Your task to perform on an android device: Find coffee shops on Maps Image 0: 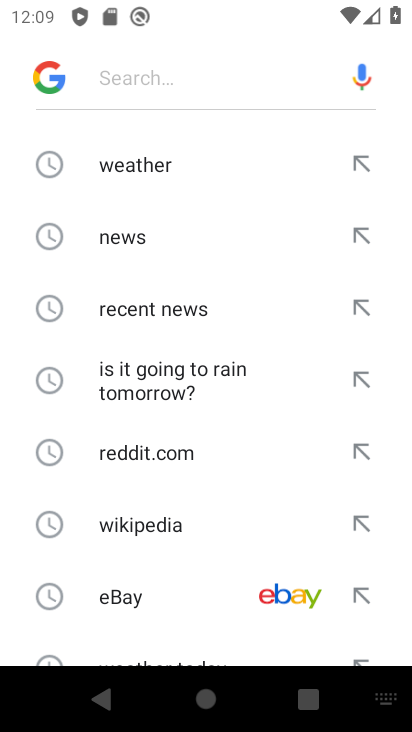
Step 0: press home button
Your task to perform on an android device: Find coffee shops on Maps Image 1: 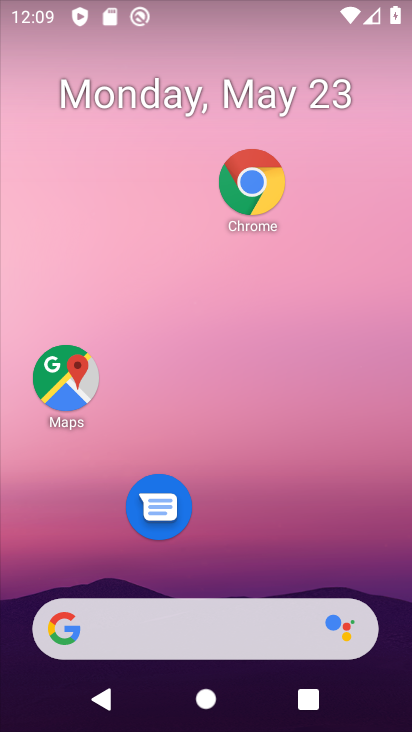
Step 1: click (64, 377)
Your task to perform on an android device: Find coffee shops on Maps Image 2: 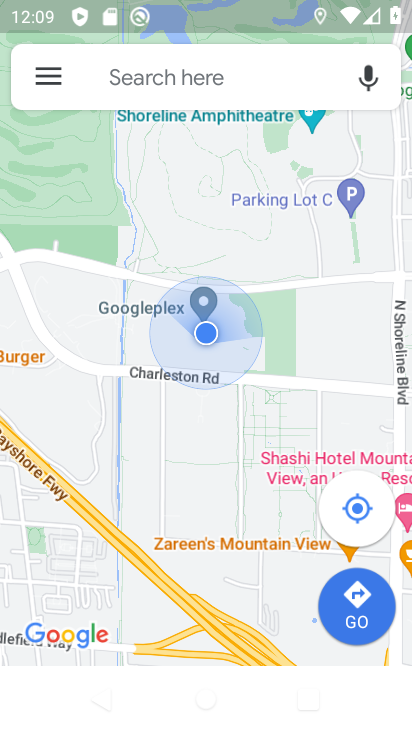
Step 2: click (229, 88)
Your task to perform on an android device: Find coffee shops on Maps Image 3: 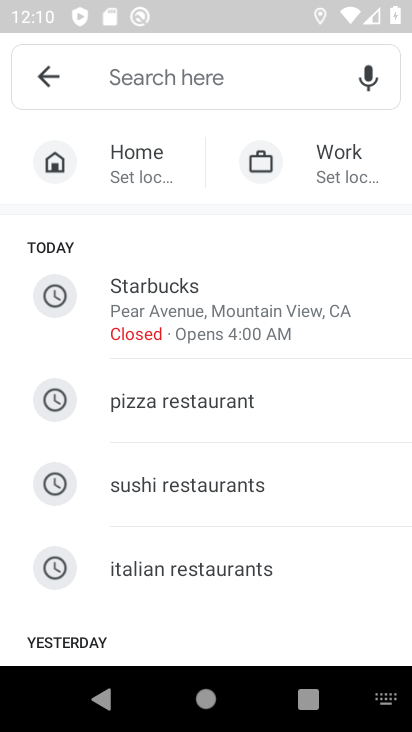
Step 3: drag from (214, 574) to (209, 156)
Your task to perform on an android device: Find coffee shops on Maps Image 4: 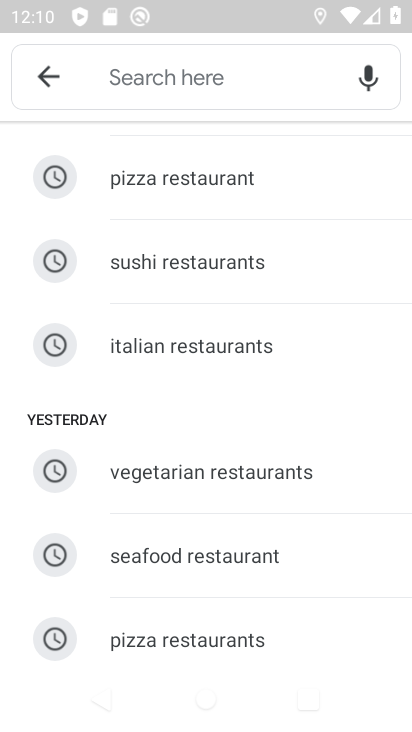
Step 4: drag from (221, 615) to (249, 180)
Your task to perform on an android device: Find coffee shops on Maps Image 5: 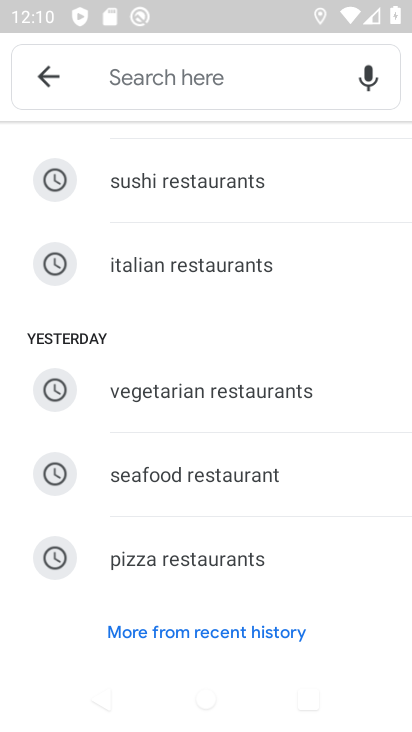
Step 5: click (215, 75)
Your task to perform on an android device: Find coffee shops on Maps Image 6: 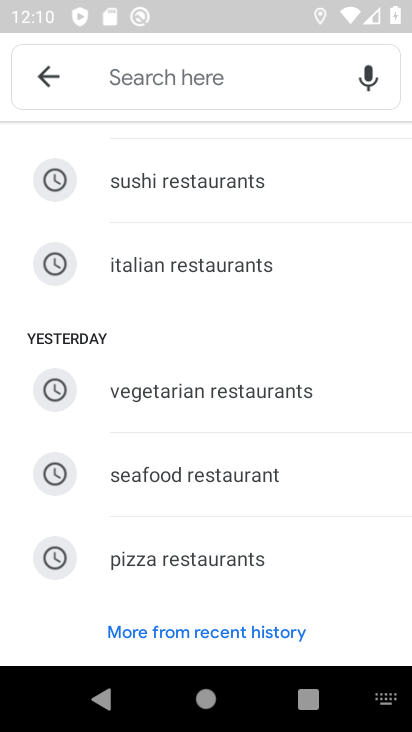
Step 6: type "coffee shop"
Your task to perform on an android device: Find coffee shops on Maps Image 7: 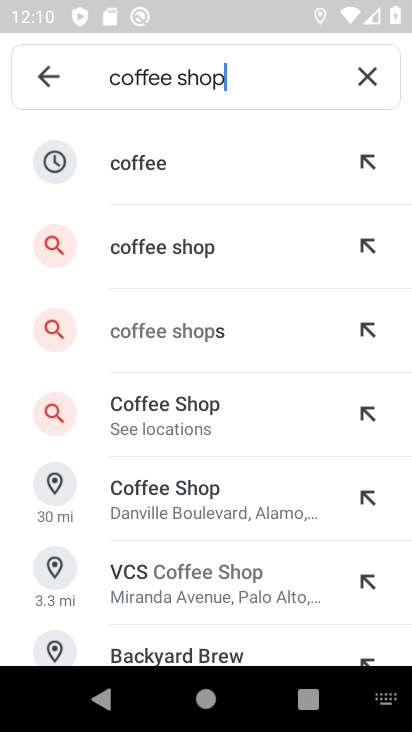
Step 7: click (200, 264)
Your task to perform on an android device: Find coffee shops on Maps Image 8: 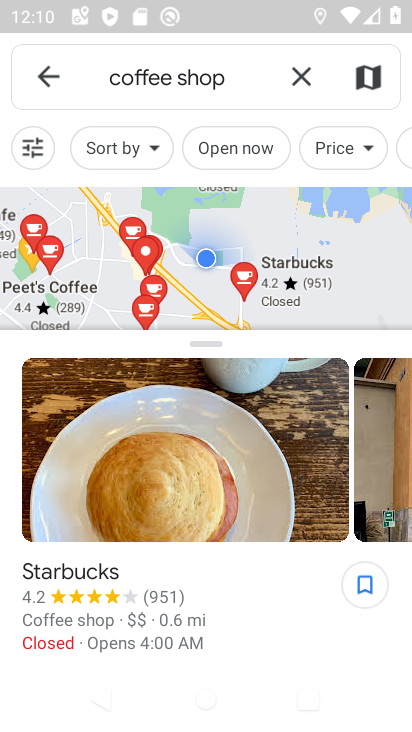
Step 8: task complete